Your task to perform on an android device: add a contact Image 0: 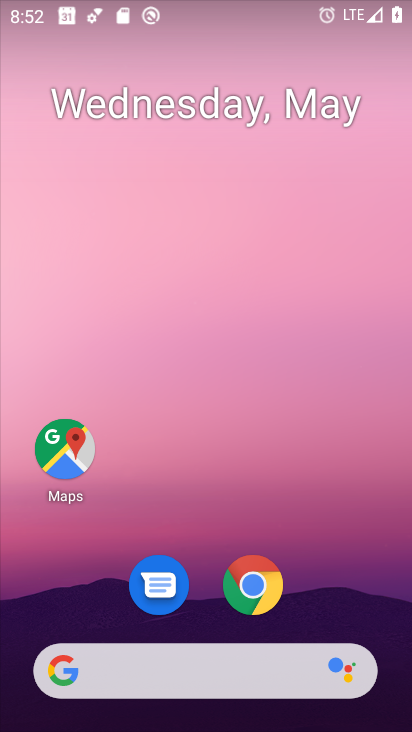
Step 0: drag from (312, 501) to (286, 53)
Your task to perform on an android device: add a contact Image 1: 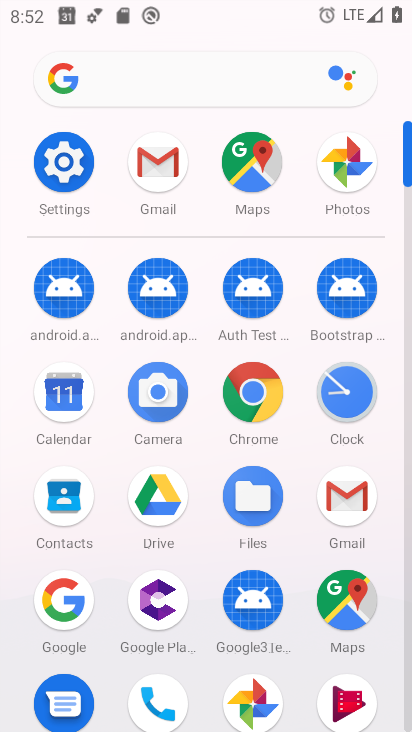
Step 1: click (74, 494)
Your task to perform on an android device: add a contact Image 2: 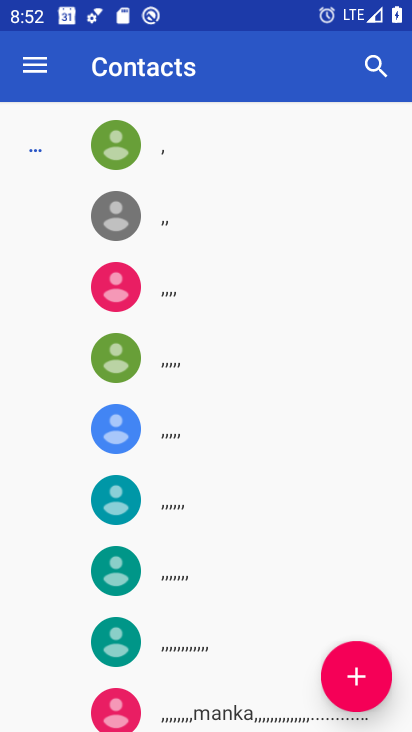
Step 2: click (336, 681)
Your task to perform on an android device: add a contact Image 3: 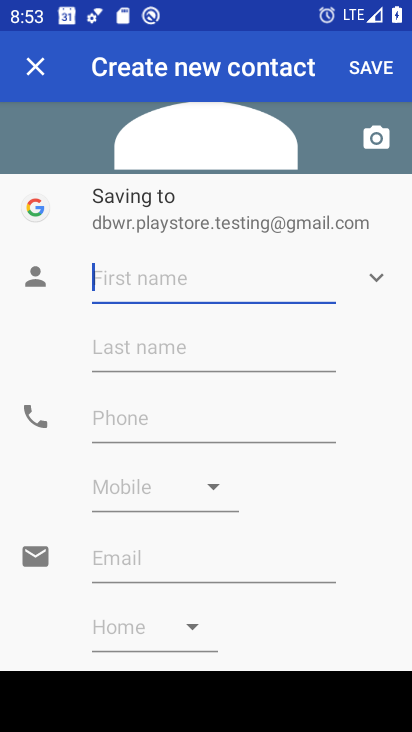
Step 3: type "Parashuram"
Your task to perform on an android device: add a contact Image 4: 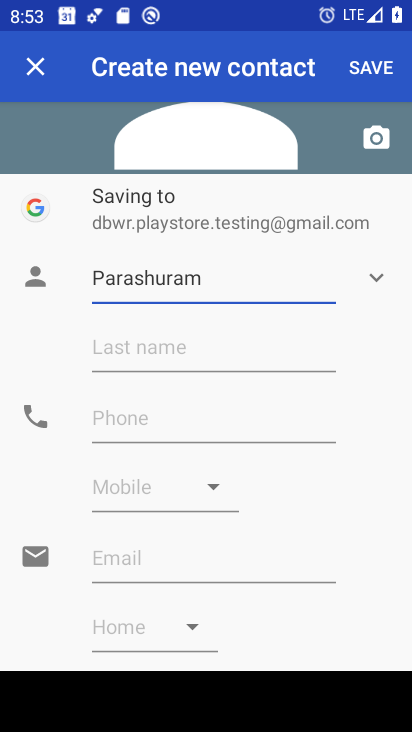
Step 4: click (203, 353)
Your task to perform on an android device: add a contact Image 5: 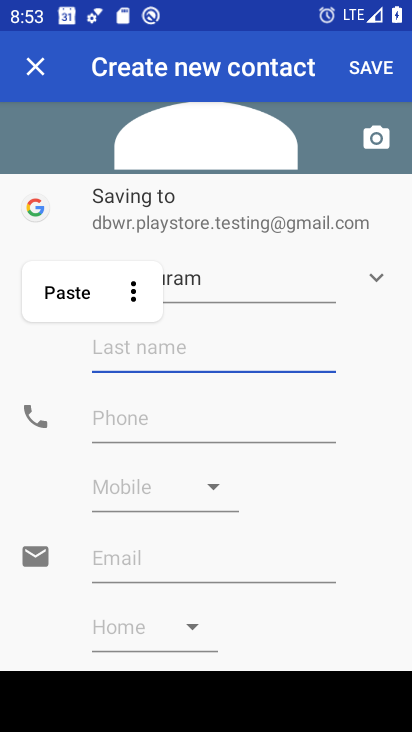
Step 5: type "Krishna"
Your task to perform on an android device: add a contact Image 6: 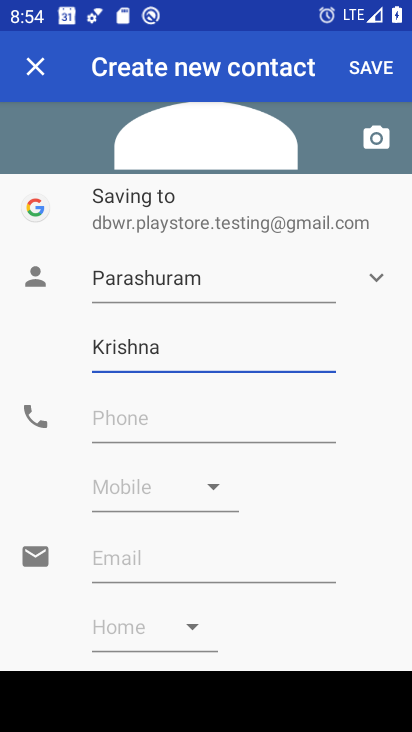
Step 6: click (251, 437)
Your task to perform on an android device: add a contact Image 7: 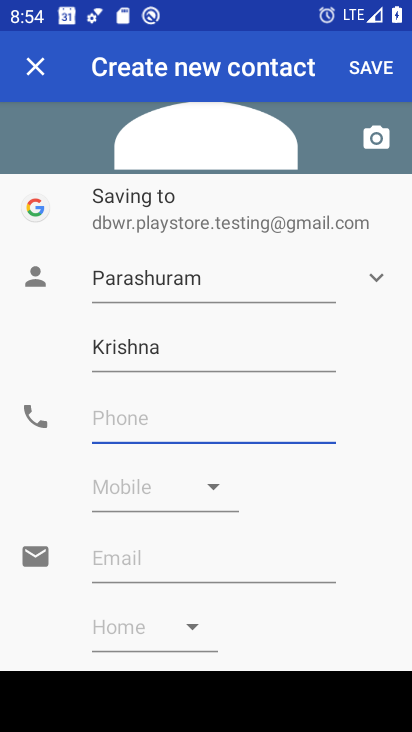
Step 7: type "01122334455"
Your task to perform on an android device: add a contact Image 8: 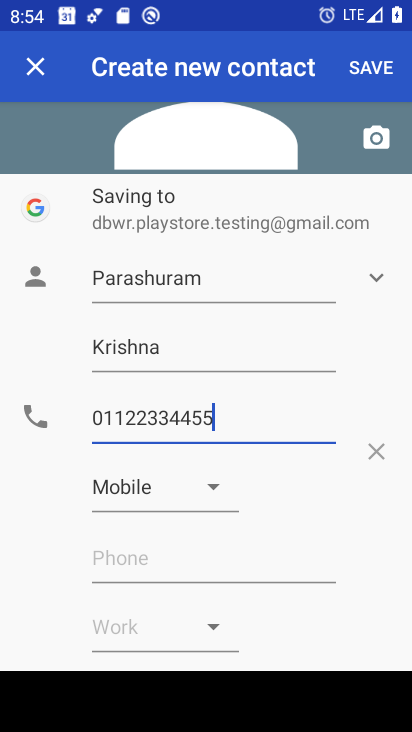
Step 8: click (372, 63)
Your task to perform on an android device: add a contact Image 9: 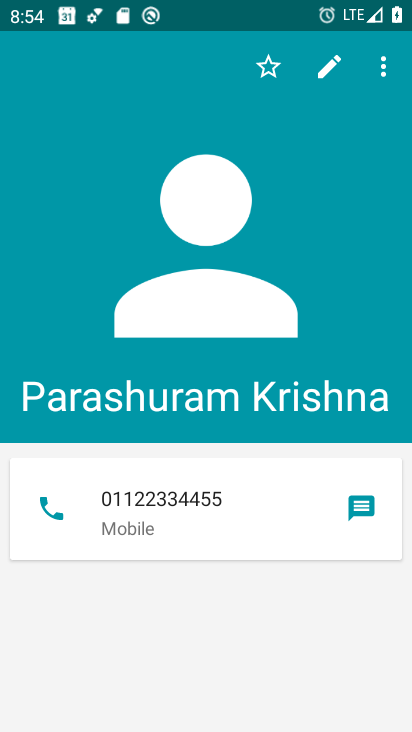
Step 9: task complete